Your task to perform on an android device: open a bookmark in the chrome app Image 0: 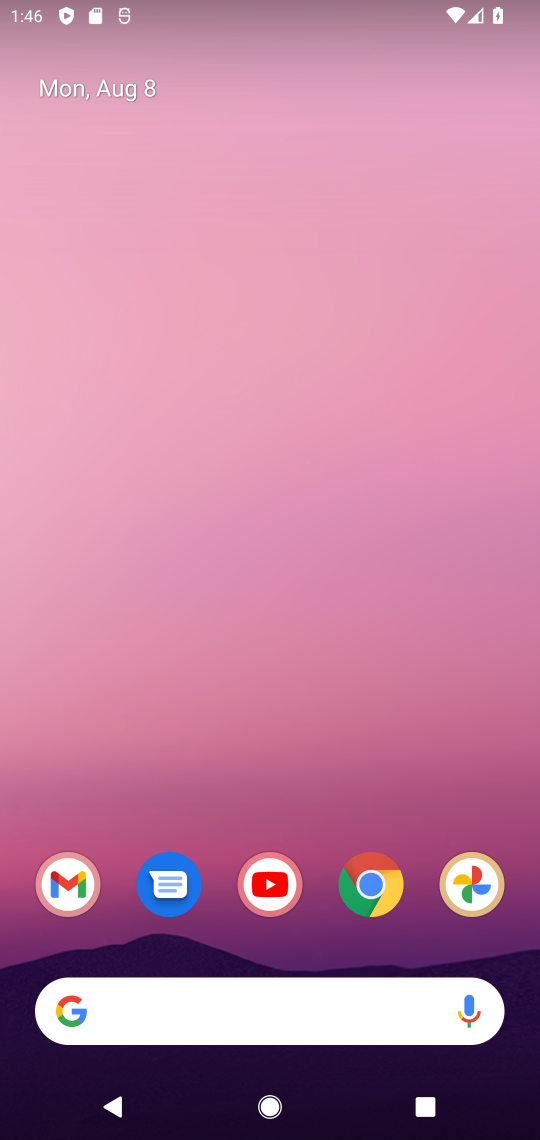
Step 0: click (374, 888)
Your task to perform on an android device: open a bookmark in the chrome app Image 1: 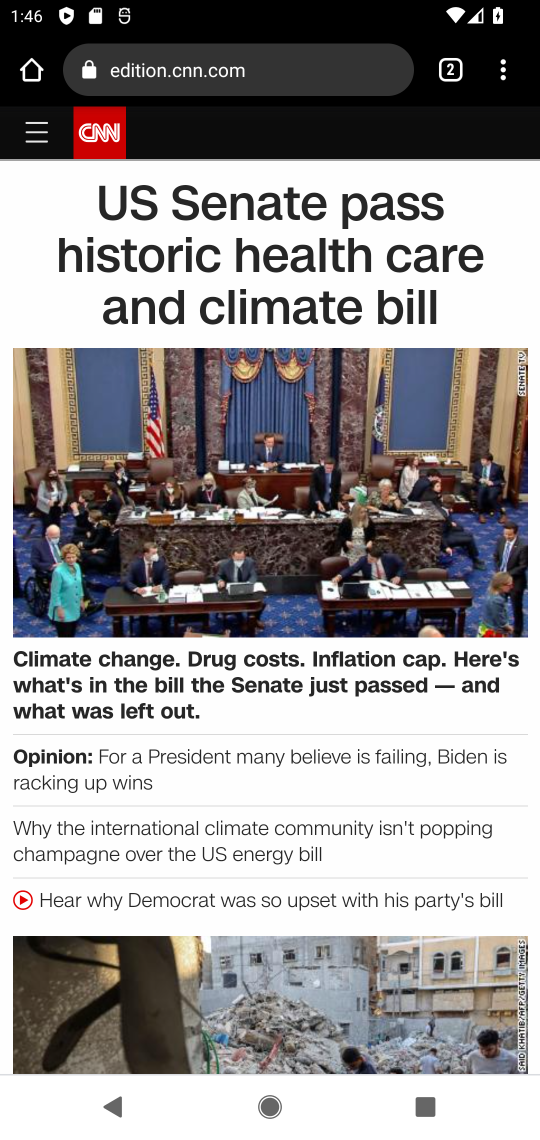
Step 1: click (507, 72)
Your task to perform on an android device: open a bookmark in the chrome app Image 2: 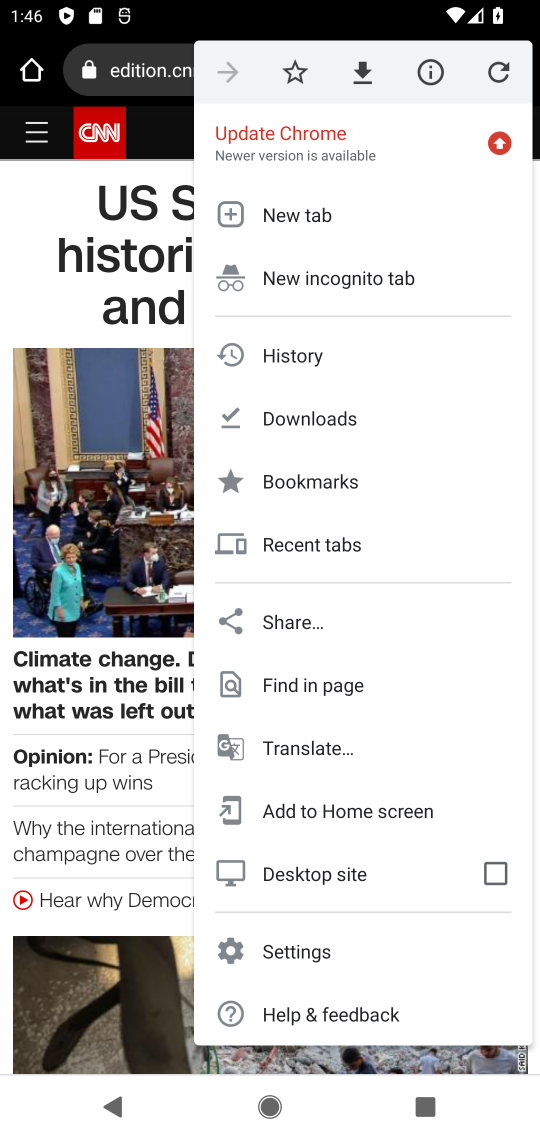
Step 2: click (297, 485)
Your task to perform on an android device: open a bookmark in the chrome app Image 3: 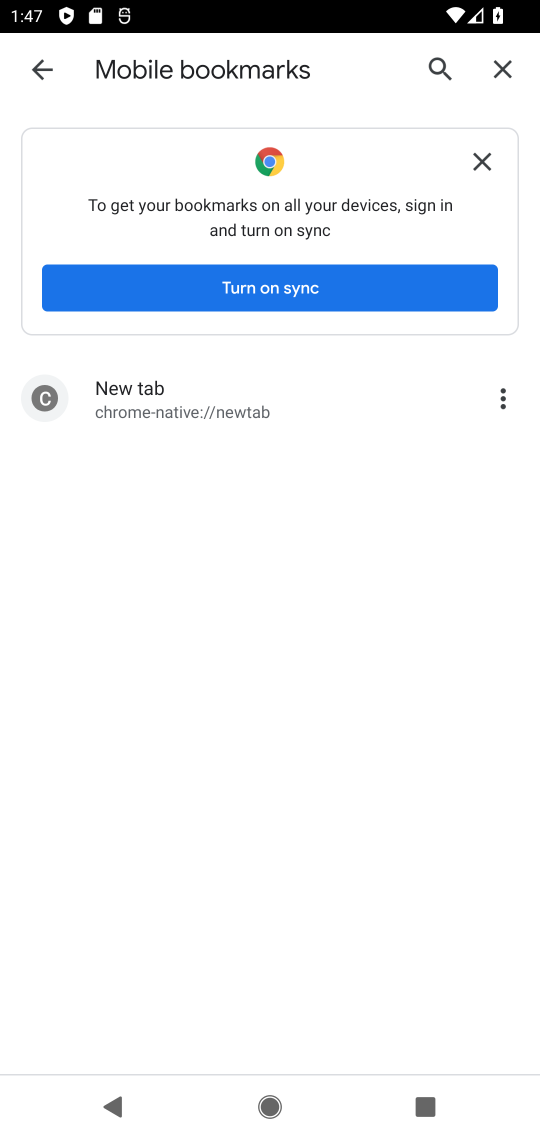
Step 3: task complete